Your task to perform on an android device: turn notification dots off Image 0: 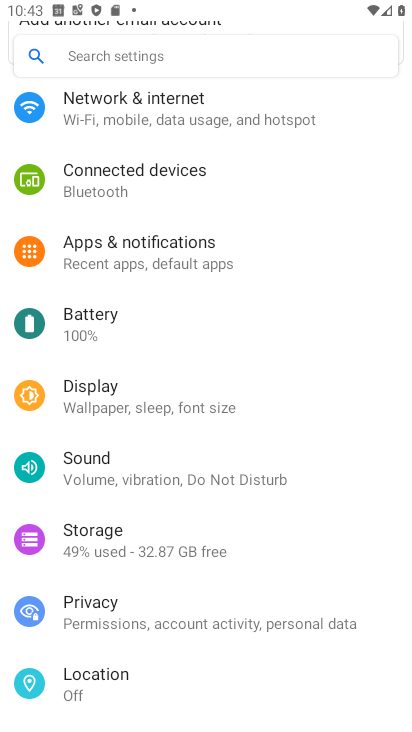
Step 0: press home button
Your task to perform on an android device: turn notification dots off Image 1: 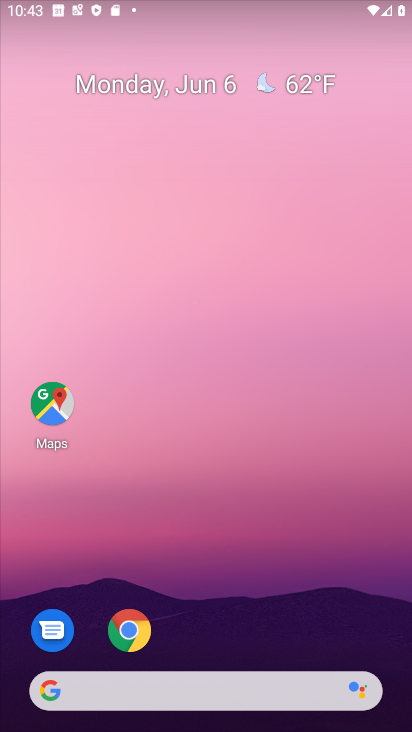
Step 1: drag from (358, 582) to (359, 233)
Your task to perform on an android device: turn notification dots off Image 2: 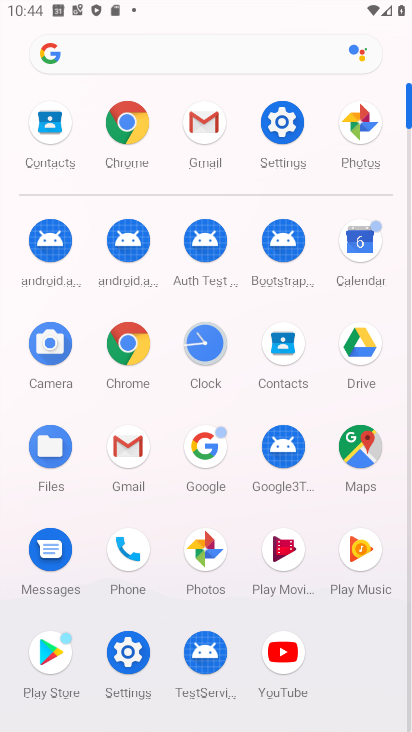
Step 2: click (139, 671)
Your task to perform on an android device: turn notification dots off Image 3: 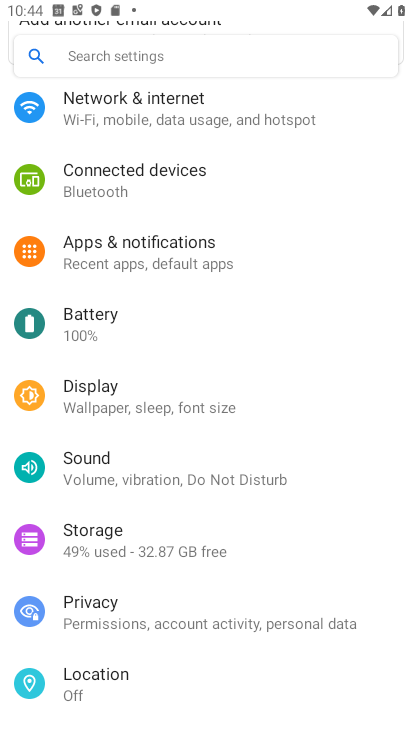
Step 3: click (216, 244)
Your task to perform on an android device: turn notification dots off Image 4: 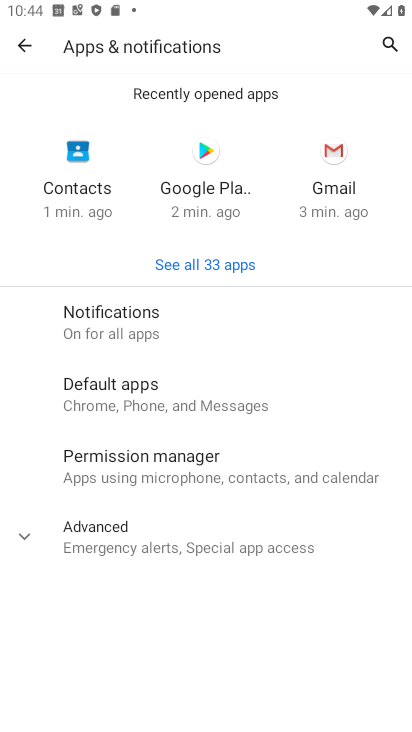
Step 4: click (222, 325)
Your task to perform on an android device: turn notification dots off Image 5: 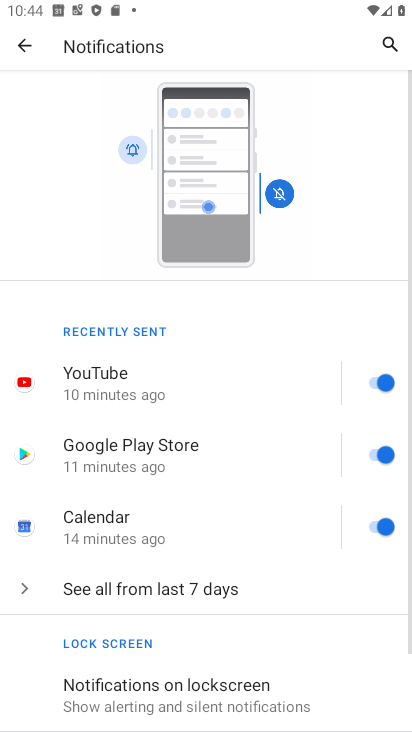
Step 5: drag from (265, 656) to (295, 228)
Your task to perform on an android device: turn notification dots off Image 6: 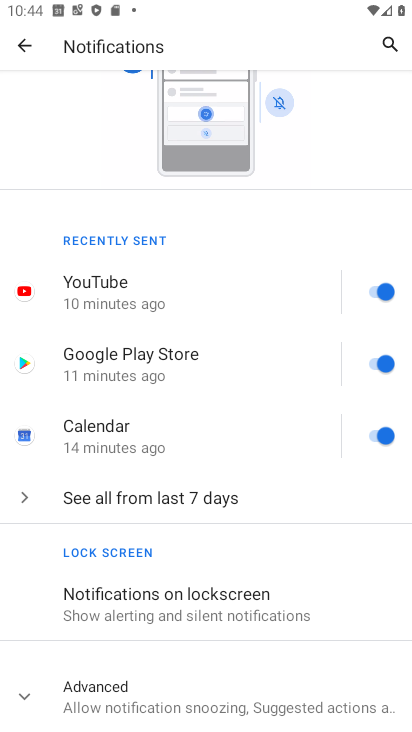
Step 6: drag from (322, 636) to (322, 404)
Your task to perform on an android device: turn notification dots off Image 7: 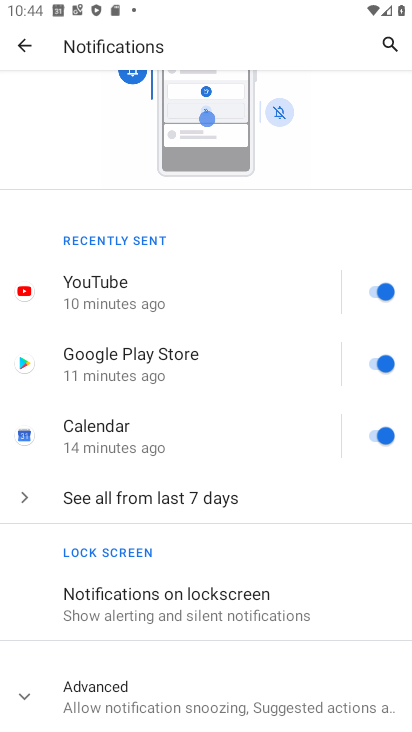
Step 7: click (296, 663)
Your task to perform on an android device: turn notification dots off Image 8: 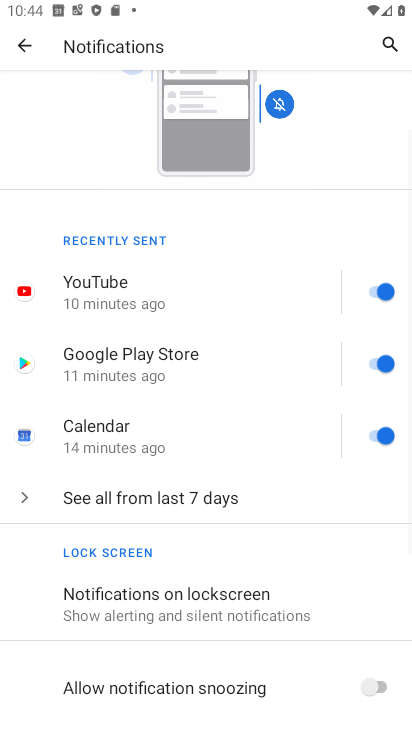
Step 8: drag from (295, 663) to (332, 311)
Your task to perform on an android device: turn notification dots off Image 9: 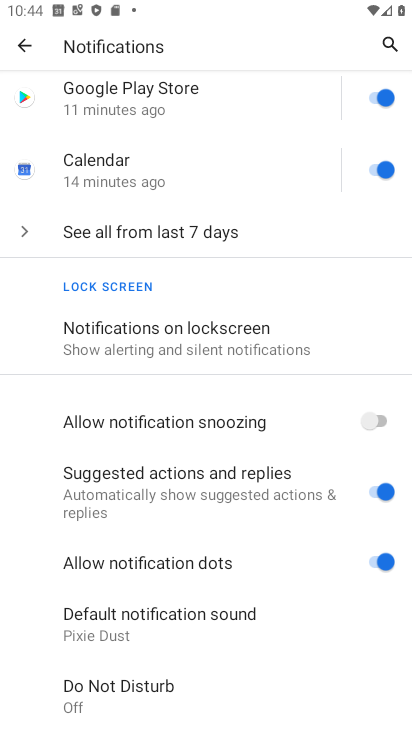
Step 9: click (376, 562)
Your task to perform on an android device: turn notification dots off Image 10: 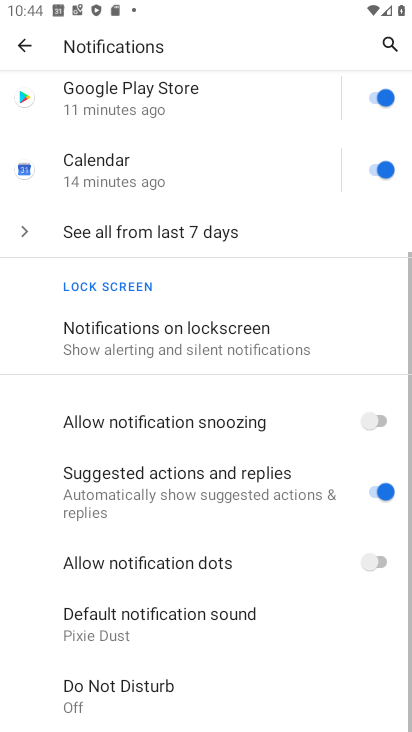
Step 10: task complete